Your task to perform on an android device: Open network settings Image 0: 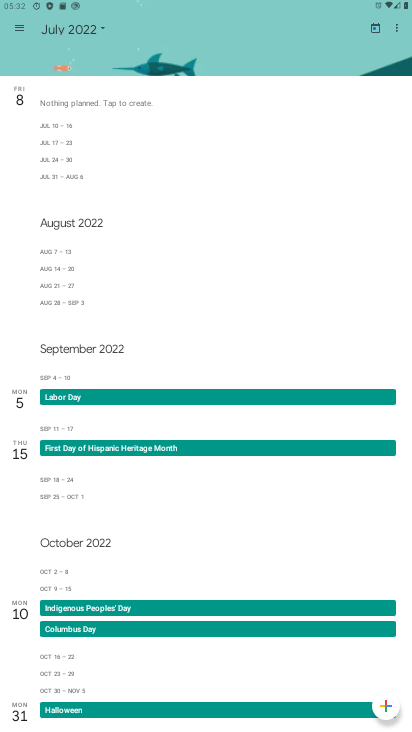
Step 0: press home button
Your task to perform on an android device: Open network settings Image 1: 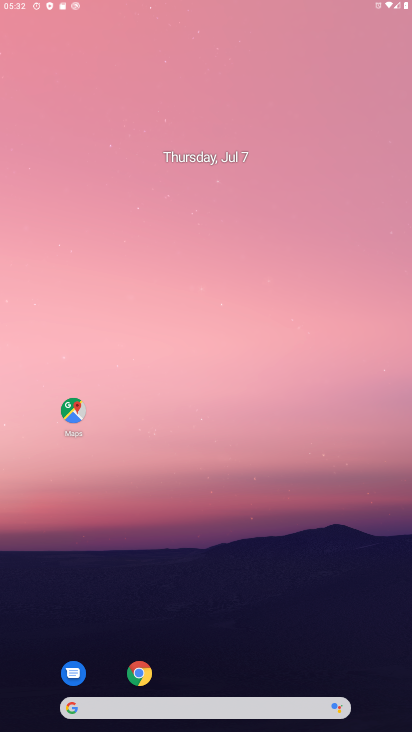
Step 1: drag from (262, 687) to (295, 132)
Your task to perform on an android device: Open network settings Image 2: 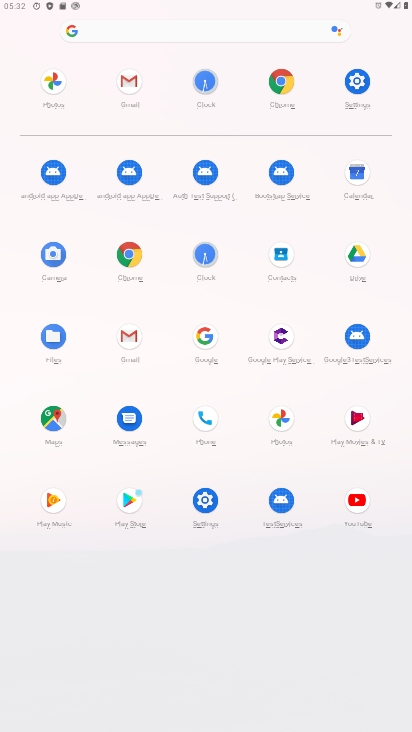
Step 2: click (362, 78)
Your task to perform on an android device: Open network settings Image 3: 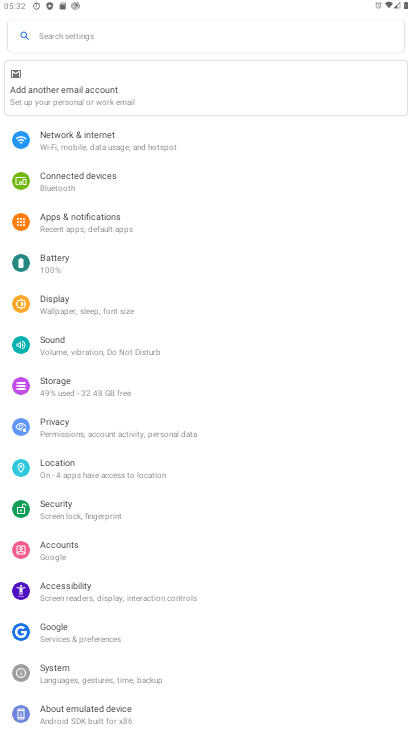
Step 3: click (120, 135)
Your task to perform on an android device: Open network settings Image 4: 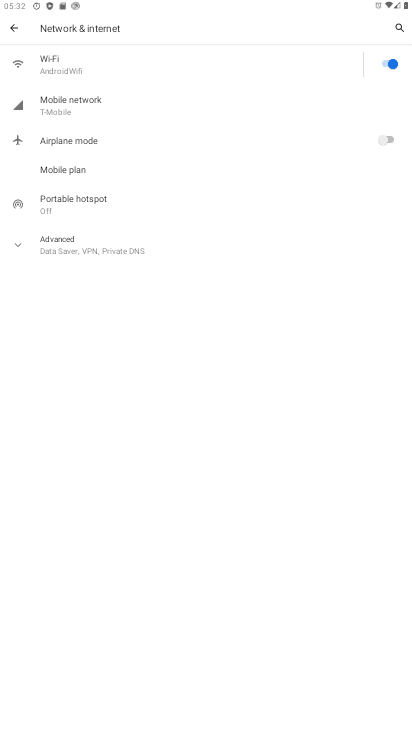
Step 4: click (121, 107)
Your task to perform on an android device: Open network settings Image 5: 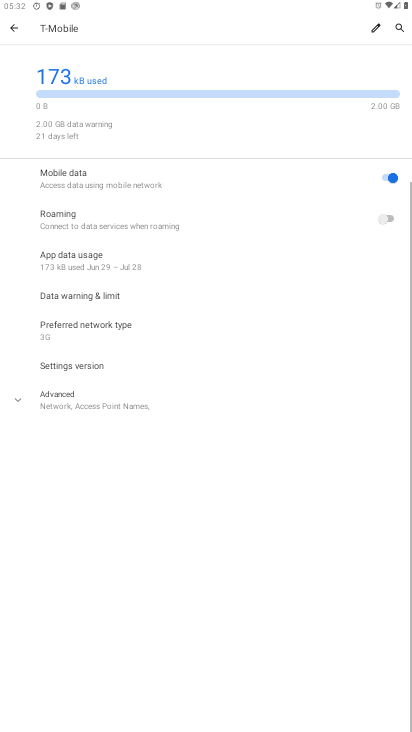
Step 5: task complete